Your task to perform on an android device: When is my next meeting? Image 0: 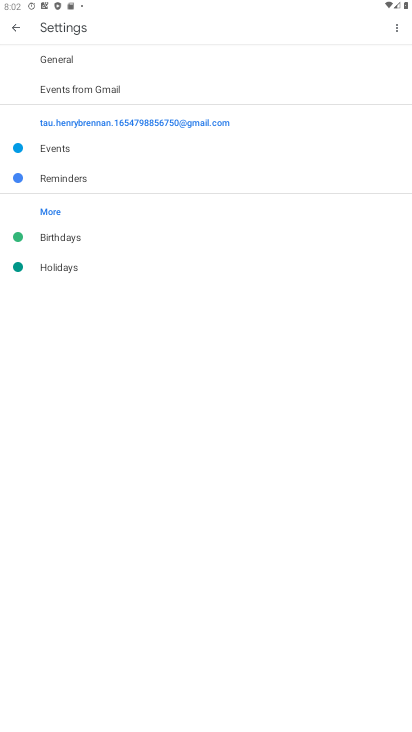
Step 0: press home button
Your task to perform on an android device: When is my next meeting? Image 1: 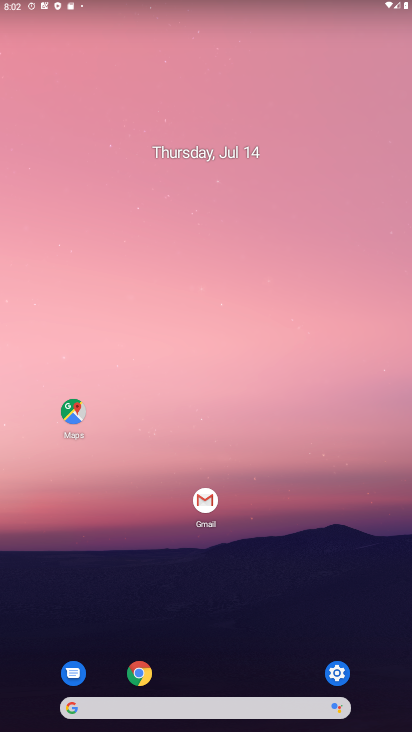
Step 1: drag from (238, 716) to (186, 277)
Your task to perform on an android device: When is my next meeting? Image 2: 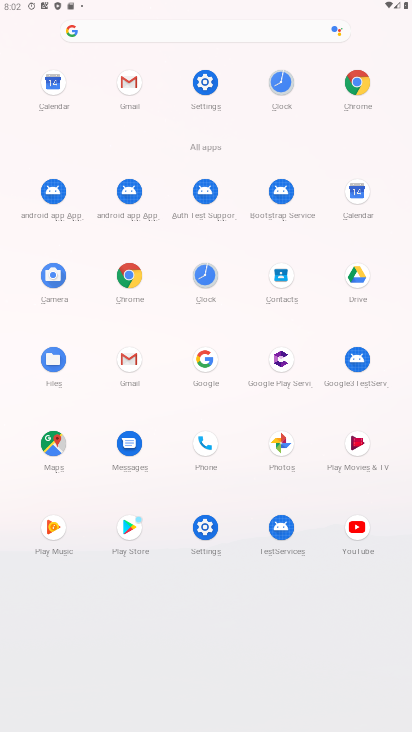
Step 2: click (205, 88)
Your task to perform on an android device: When is my next meeting? Image 3: 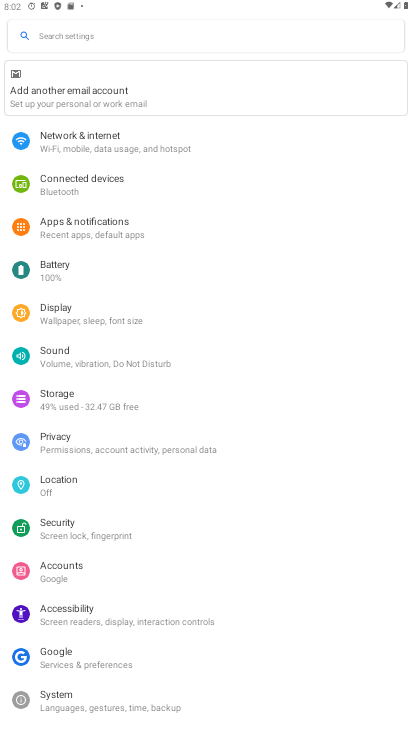
Step 3: press home button
Your task to perform on an android device: When is my next meeting? Image 4: 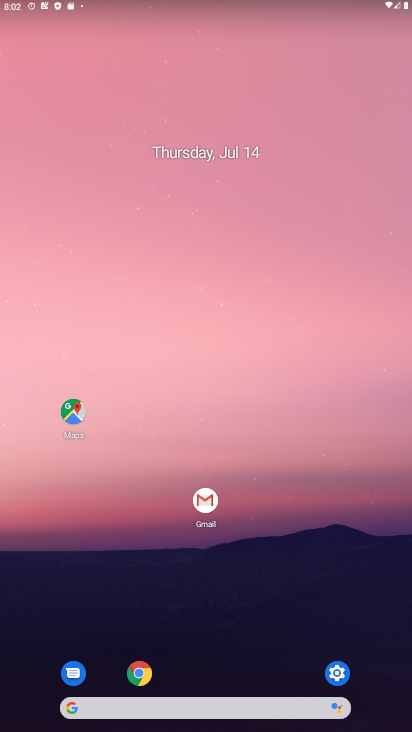
Step 4: drag from (283, 655) to (266, 95)
Your task to perform on an android device: When is my next meeting? Image 5: 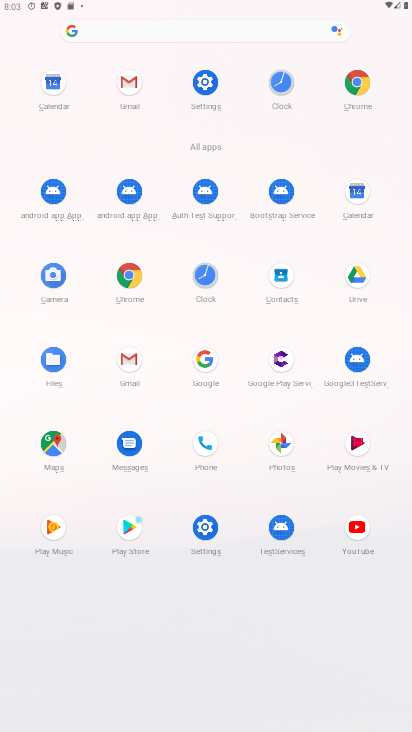
Step 5: click (358, 196)
Your task to perform on an android device: When is my next meeting? Image 6: 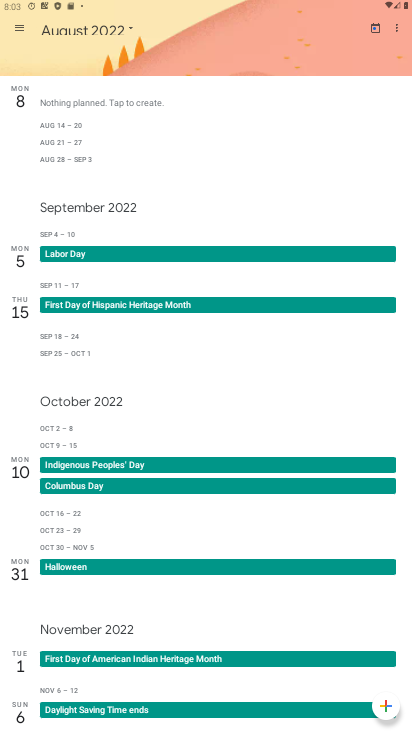
Step 6: click (13, 26)
Your task to perform on an android device: When is my next meeting? Image 7: 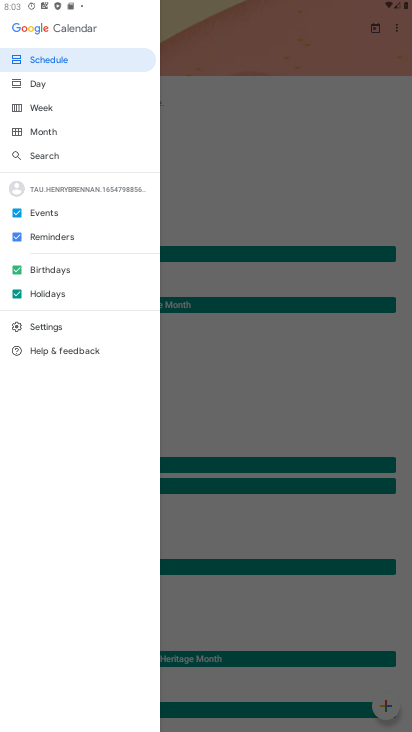
Step 7: click (42, 134)
Your task to perform on an android device: When is my next meeting? Image 8: 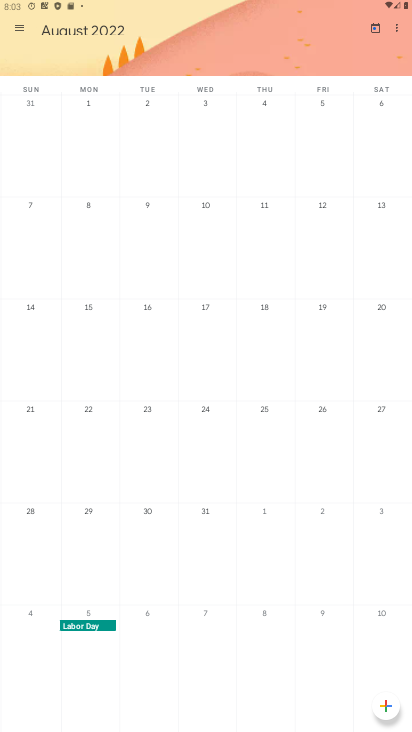
Step 8: drag from (27, 329) to (403, 150)
Your task to perform on an android device: When is my next meeting? Image 9: 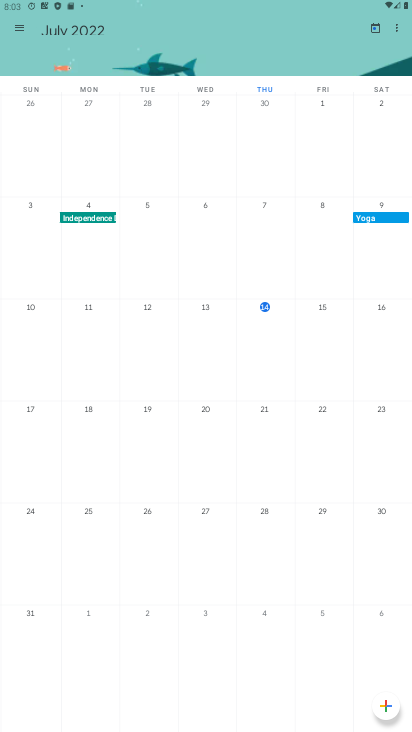
Step 9: click (263, 309)
Your task to perform on an android device: When is my next meeting? Image 10: 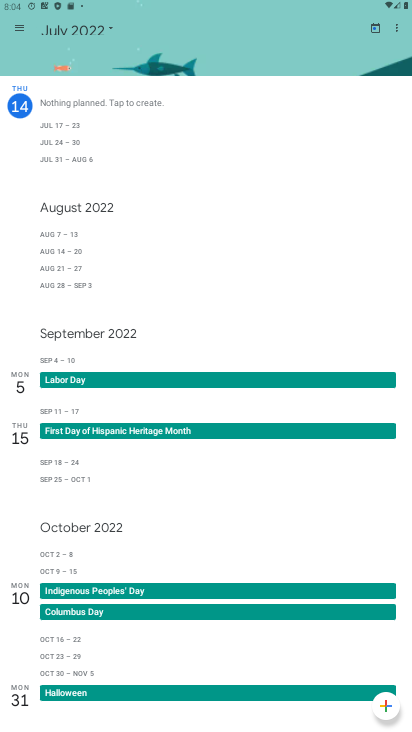
Step 10: task complete